Your task to perform on an android device: set an alarm Image 0: 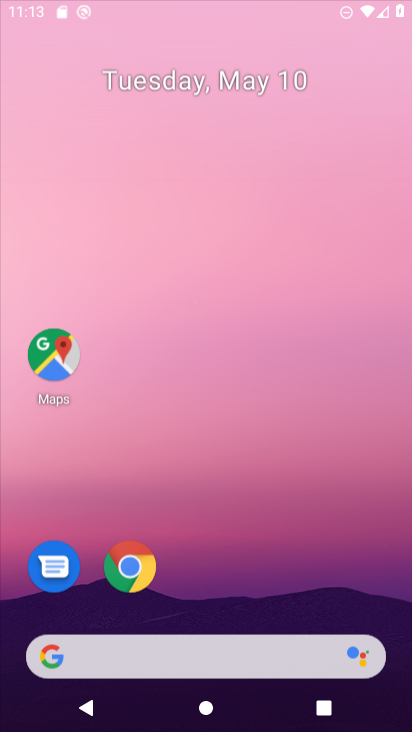
Step 0: click (279, 81)
Your task to perform on an android device: set an alarm Image 1: 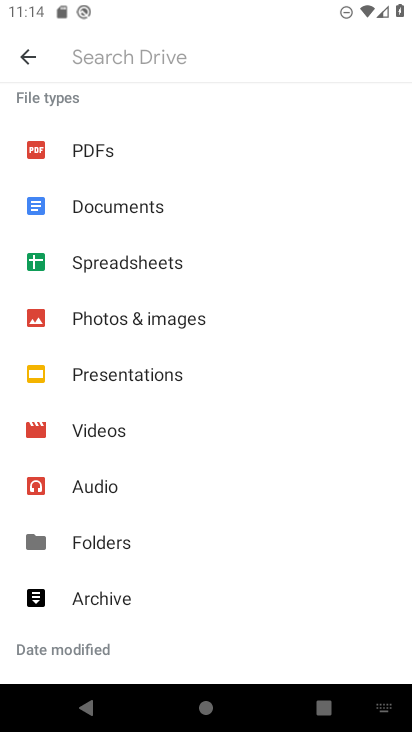
Step 1: press home button
Your task to perform on an android device: set an alarm Image 2: 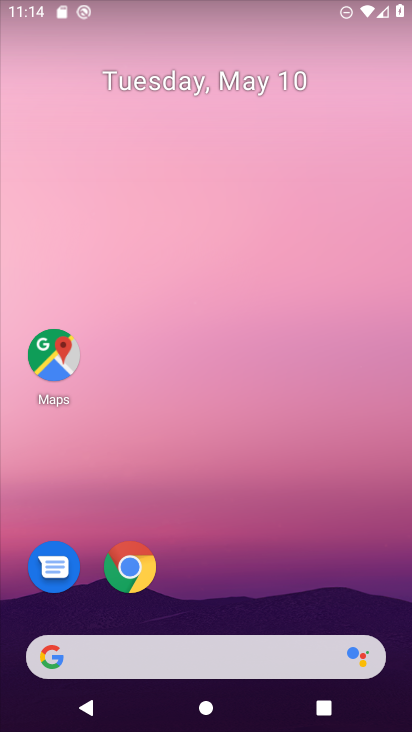
Step 2: drag from (215, 506) to (232, 88)
Your task to perform on an android device: set an alarm Image 3: 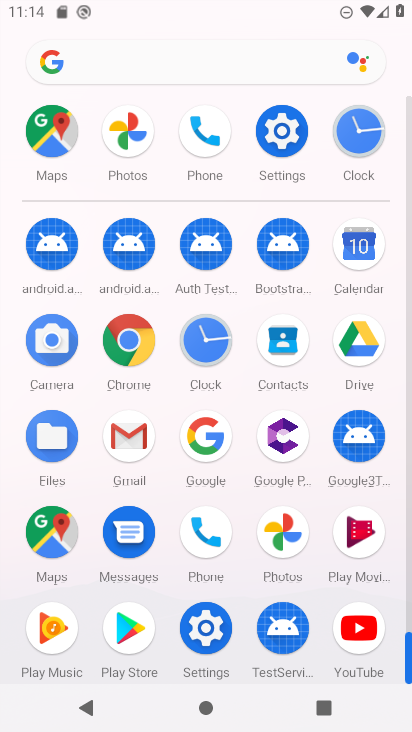
Step 3: click (211, 361)
Your task to perform on an android device: set an alarm Image 4: 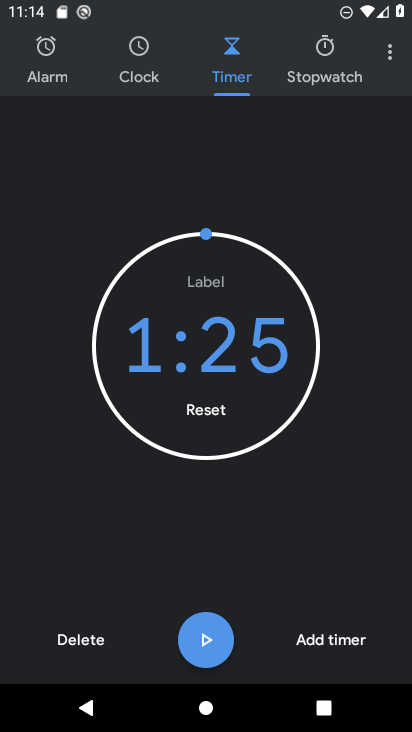
Step 4: click (61, 74)
Your task to perform on an android device: set an alarm Image 5: 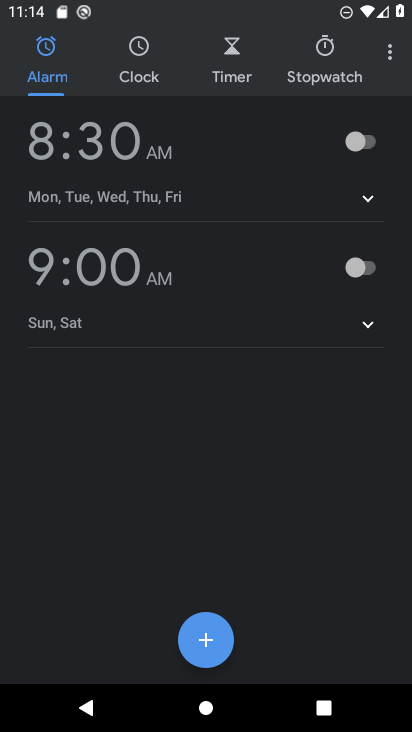
Step 5: click (209, 633)
Your task to perform on an android device: set an alarm Image 6: 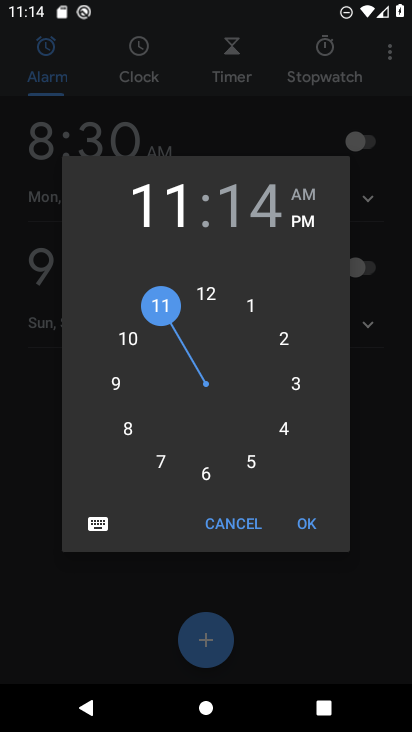
Step 6: click (309, 523)
Your task to perform on an android device: set an alarm Image 7: 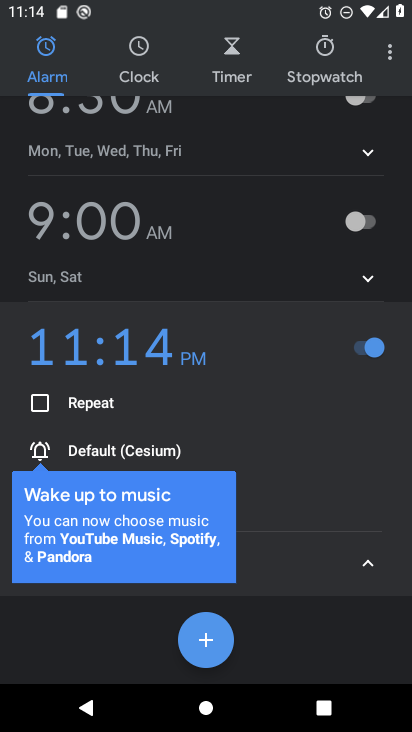
Step 7: task complete